Your task to perform on an android device: Go to display settings Image 0: 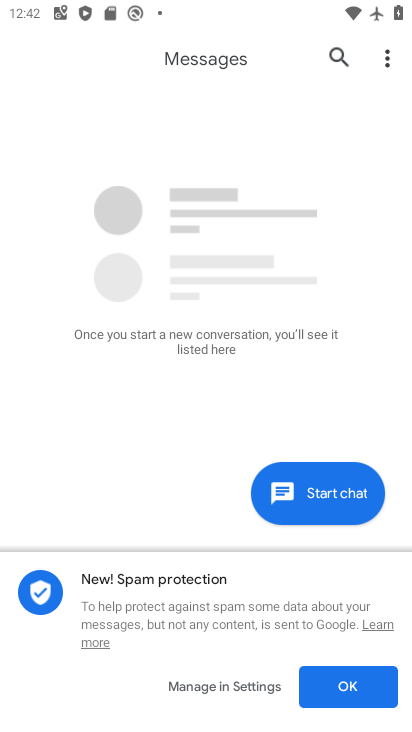
Step 0: press home button
Your task to perform on an android device: Go to display settings Image 1: 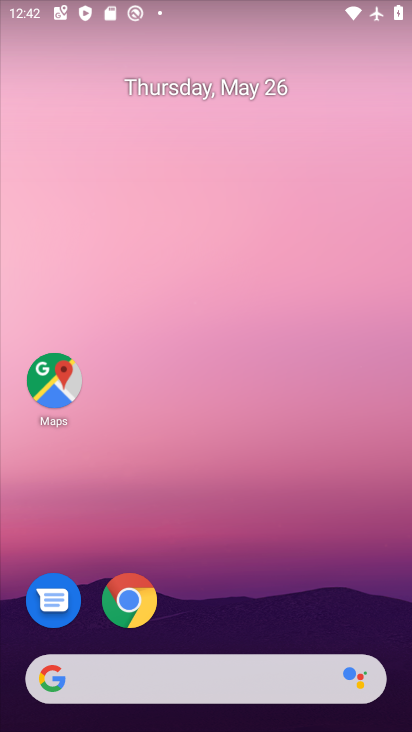
Step 1: drag from (314, 537) to (290, 221)
Your task to perform on an android device: Go to display settings Image 2: 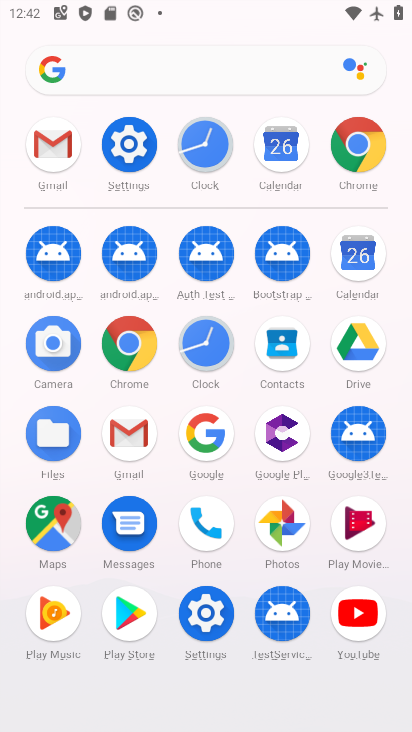
Step 2: click (146, 155)
Your task to perform on an android device: Go to display settings Image 3: 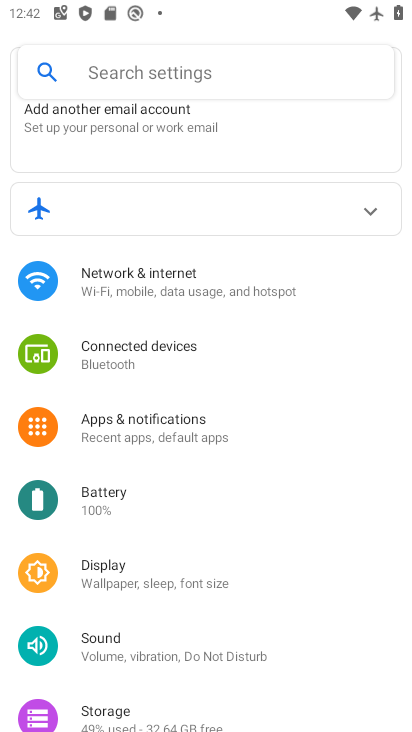
Step 3: click (150, 580)
Your task to perform on an android device: Go to display settings Image 4: 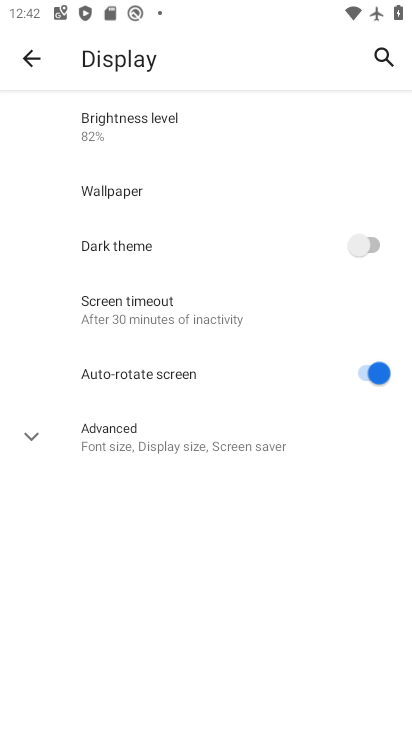
Step 4: task complete